Your task to perform on an android device: turn off location Image 0: 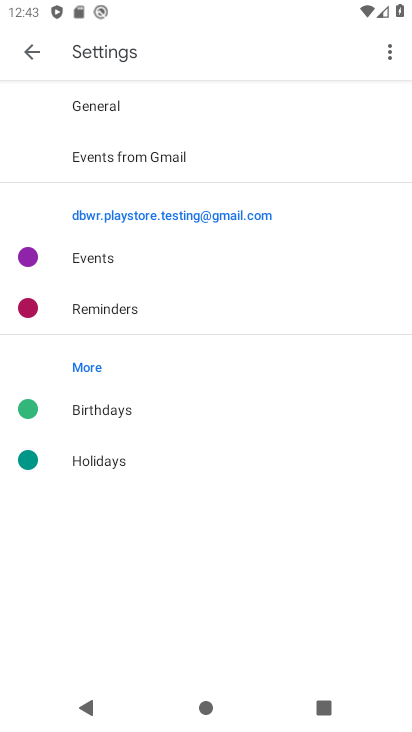
Step 0: press home button
Your task to perform on an android device: turn off location Image 1: 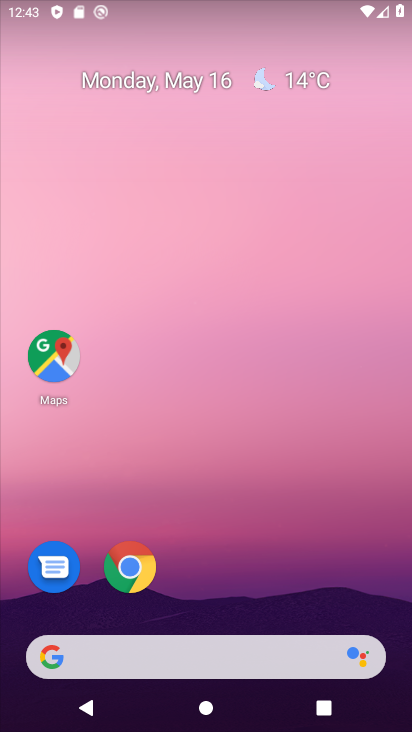
Step 1: drag from (221, 554) to (125, 60)
Your task to perform on an android device: turn off location Image 2: 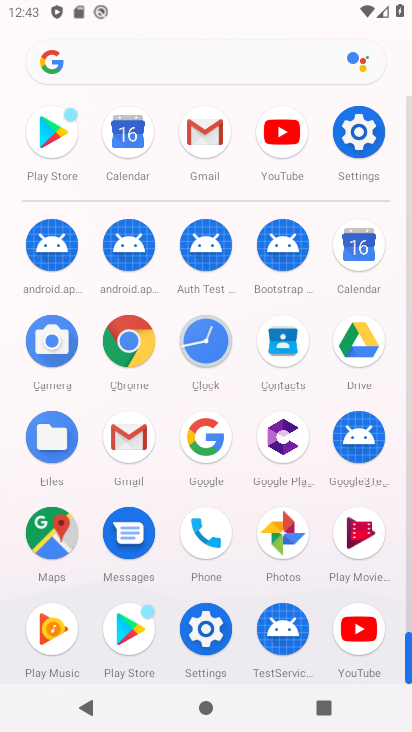
Step 2: click (359, 122)
Your task to perform on an android device: turn off location Image 3: 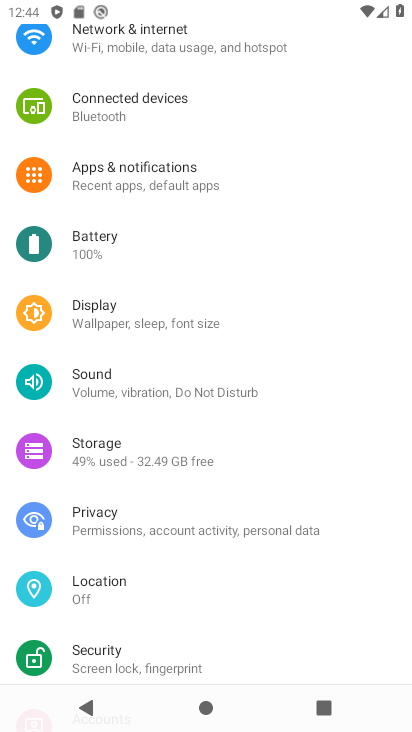
Step 3: click (81, 581)
Your task to perform on an android device: turn off location Image 4: 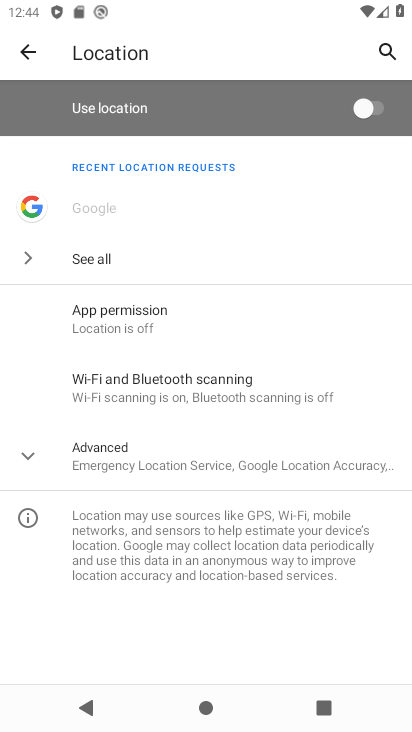
Step 4: task complete